Your task to perform on an android device: turn off airplane mode Image 0: 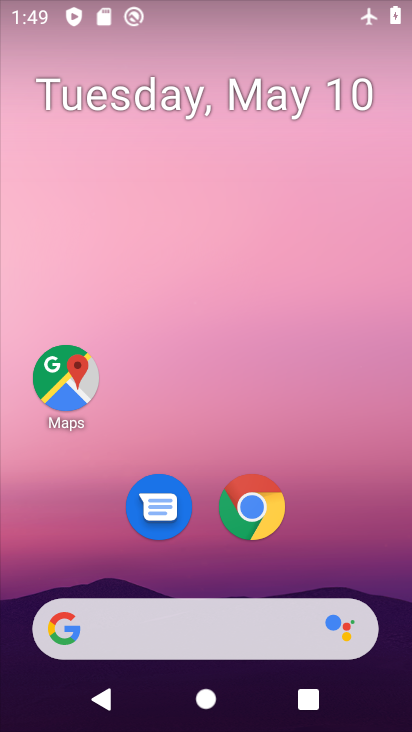
Step 0: drag from (349, 468) to (174, 110)
Your task to perform on an android device: turn off airplane mode Image 1: 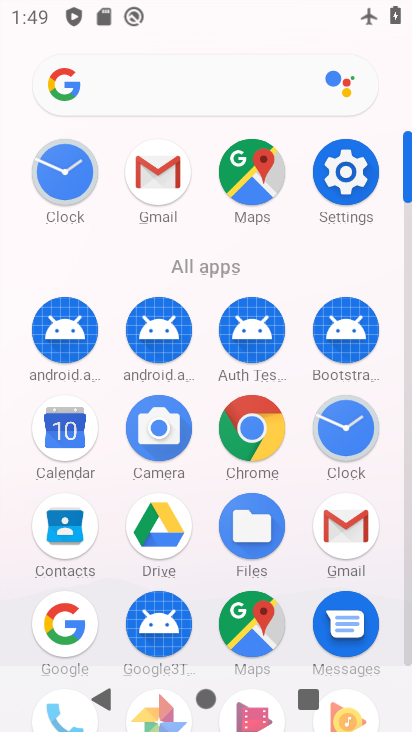
Step 1: click (343, 159)
Your task to perform on an android device: turn off airplane mode Image 2: 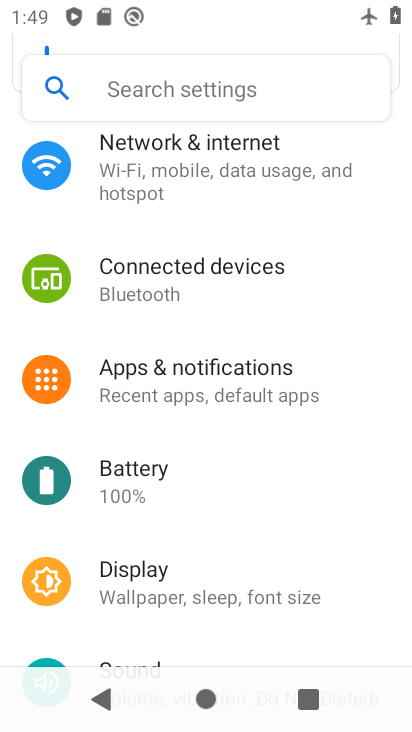
Step 2: click (346, 157)
Your task to perform on an android device: turn off airplane mode Image 3: 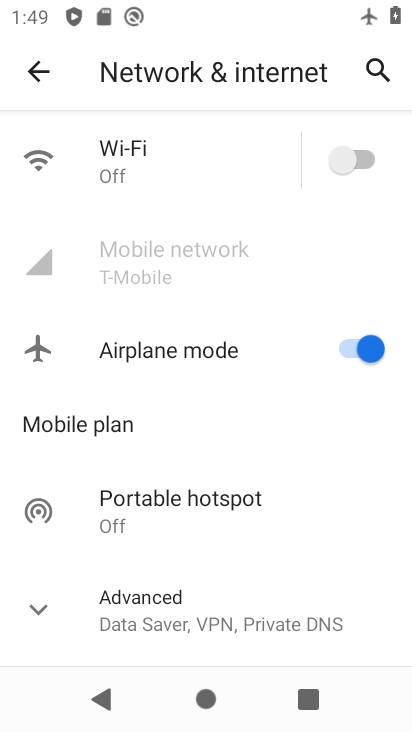
Step 3: click (369, 352)
Your task to perform on an android device: turn off airplane mode Image 4: 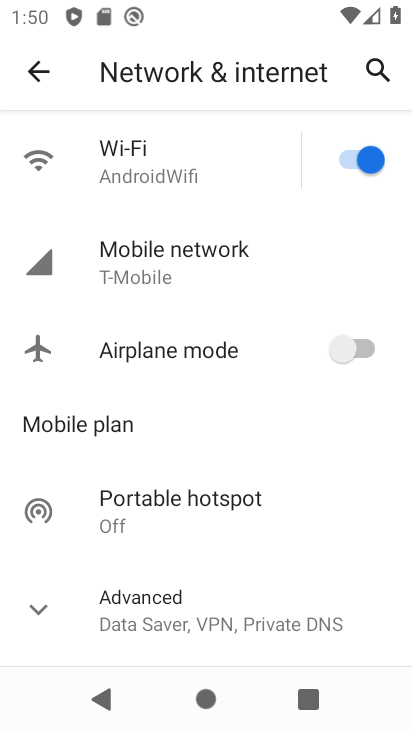
Step 4: task complete